Your task to perform on an android device: Open Google Chrome and click the shortcut for Amazon.com Image 0: 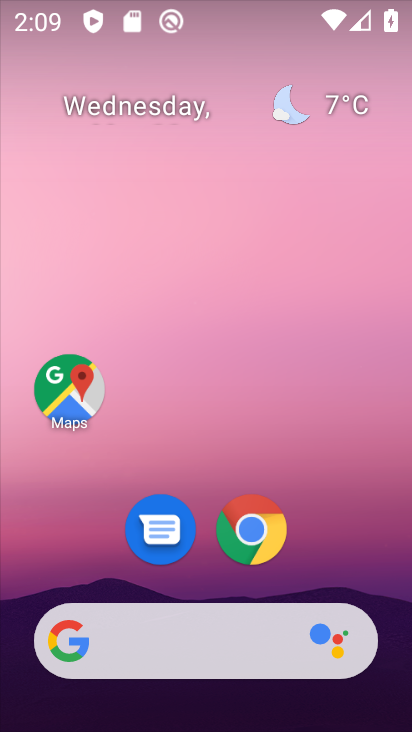
Step 0: drag from (325, 490) to (324, 56)
Your task to perform on an android device: Open Google Chrome and click the shortcut for Amazon.com Image 1: 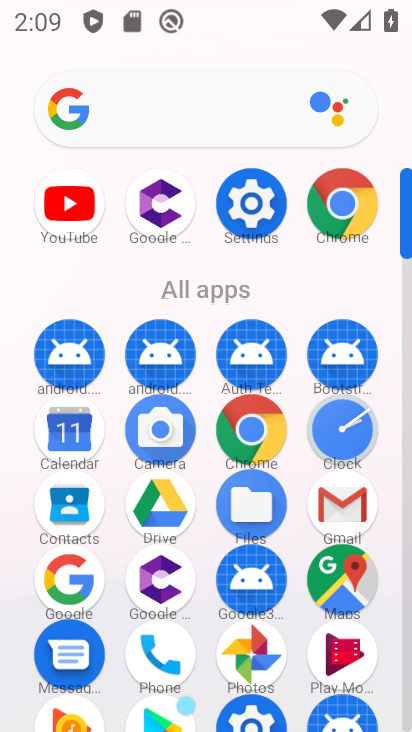
Step 1: click (350, 220)
Your task to perform on an android device: Open Google Chrome and click the shortcut for Amazon.com Image 2: 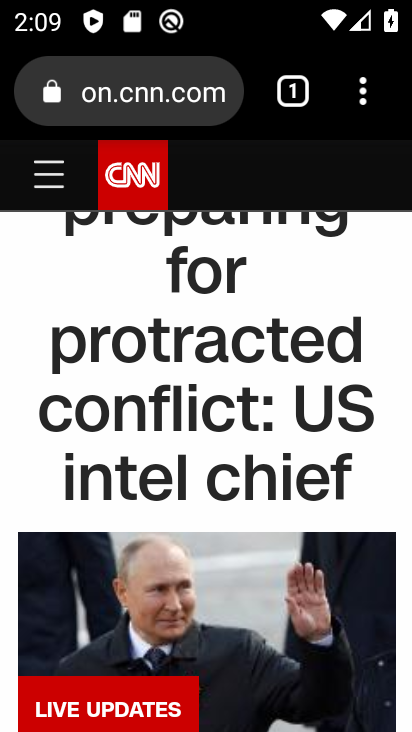
Step 2: click (161, 93)
Your task to perform on an android device: Open Google Chrome and click the shortcut for Amazon.com Image 3: 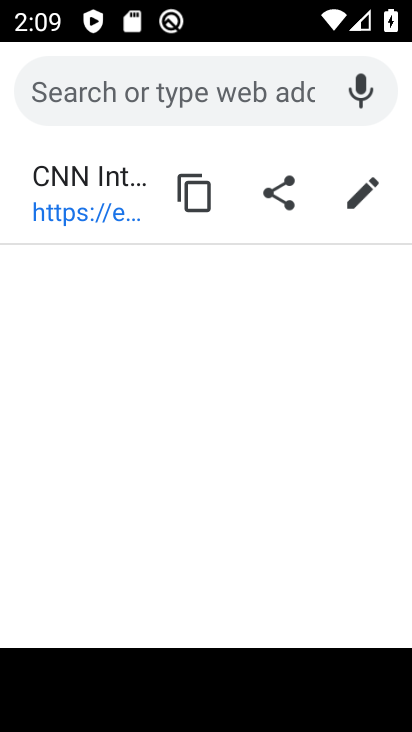
Step 3: type "amazon"
Your task to perform on an android device: Open Google Chrome and click the shortcut for Amazon.com Image 4: 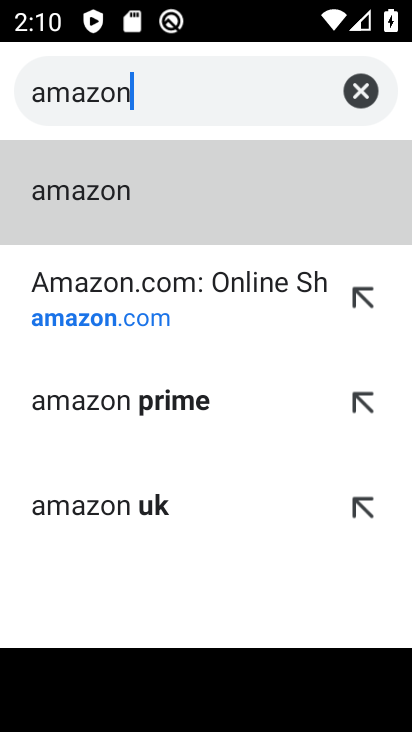
Step 4: click (159, 309)
Your task to perform on an android device: Open Google Chrome and click the shortcut for Amazon.com Image 5: 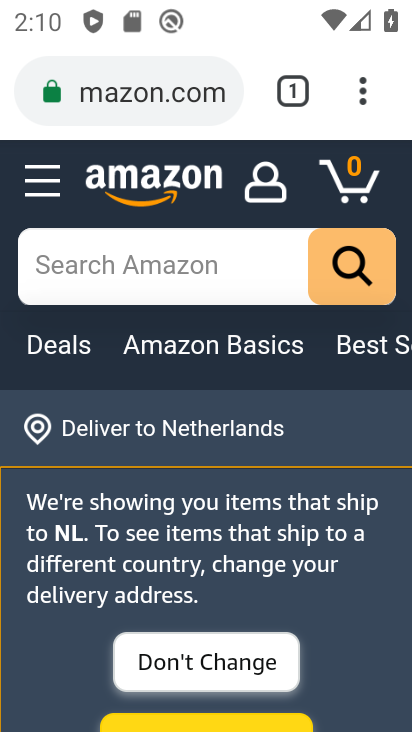
Step 5: task complete